Your task to perform on an android device: Open the calendar and show me this week's events? Image 0: 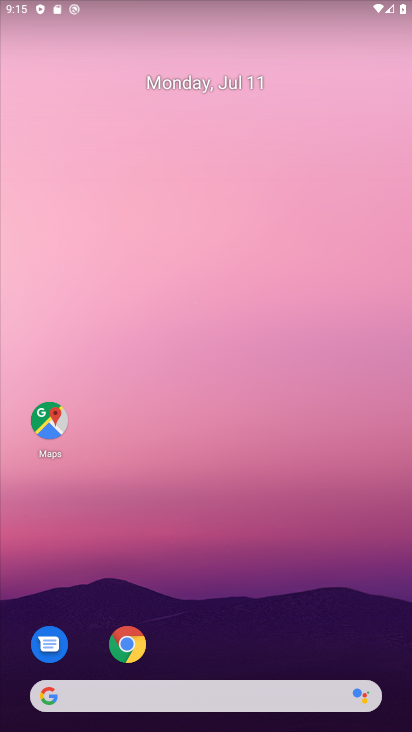
Step 0: drag from (208, 656) to (287, 73)
Your task to perform on an android device: Open the calendar and show me this week's events? Image 1: 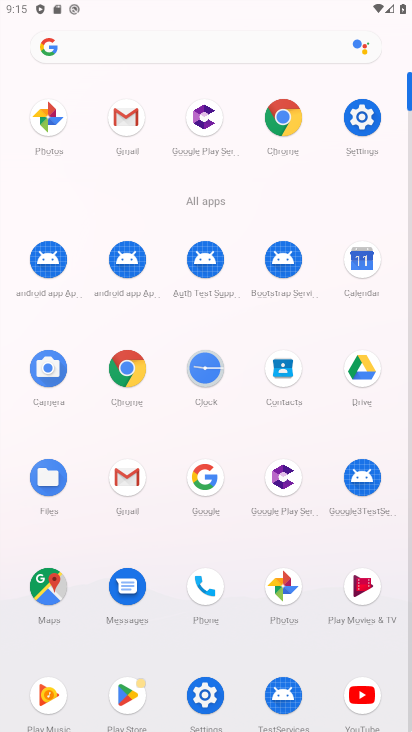
Step 1: click (362, 255)
Your task to perform on an android device: Open the calendar and show me this week's events? Image 2: 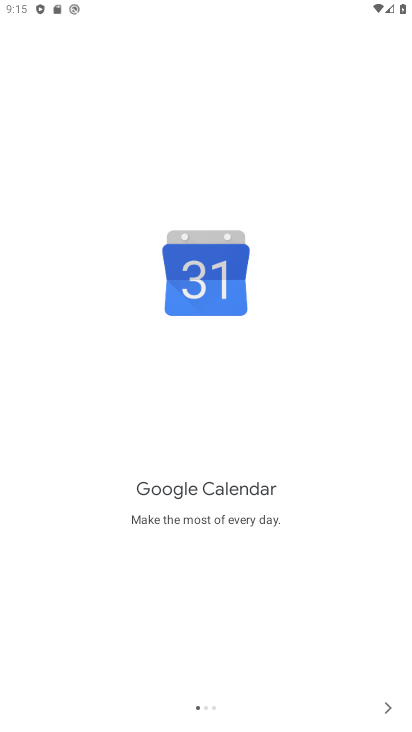
Step 2: click (388, 707)
Your task to perform on an android device: Open the calendar and show me this week's events? Image 3: 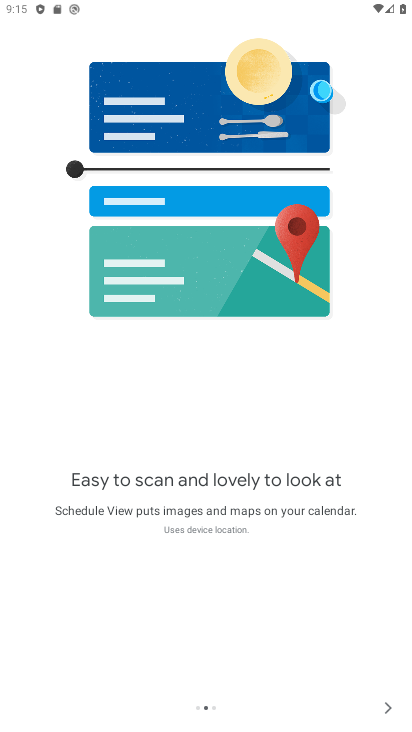
Step 3: click (388, 707)
Your task to perform on an android device: Open the calendar and show me this week's events? Image 4: 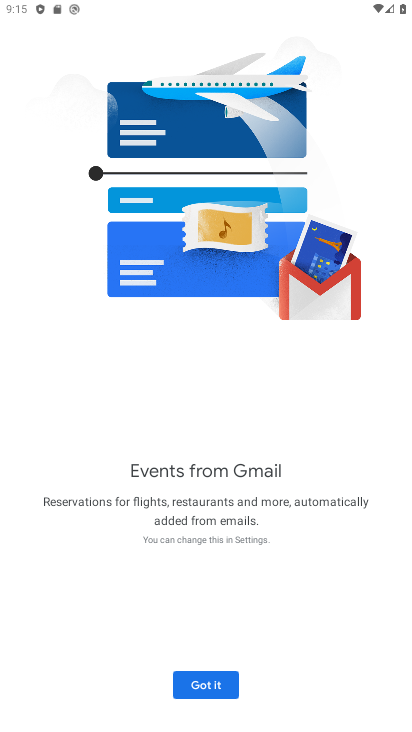
Step 4: click (210, 681)
Your task to perform on an android device: Open the calendar and show me this week's events? Image 5: 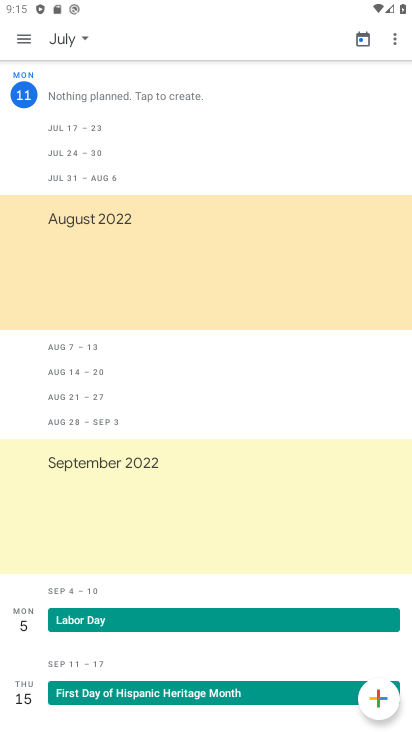
Step 5: click (31, 37)
Your task to perform on an android device: Open the calendar and show me this week's events? Image 6: 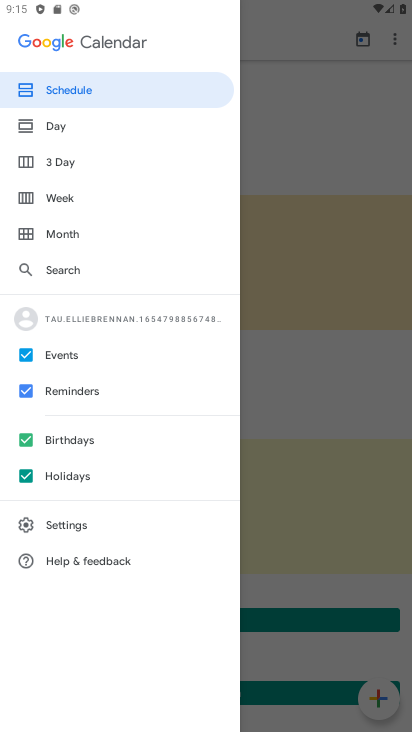
Step 6: click (29, 475)
Your task to perform on an android device: Open the calendar and show me this week's events? Image 7: 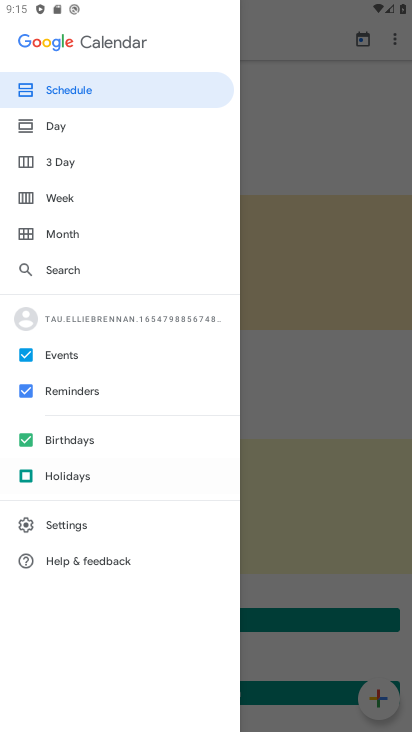
Step 7: click (22, 433)
Your task to perform on an android device: Open the calendar and show me this week's events? Image 8: 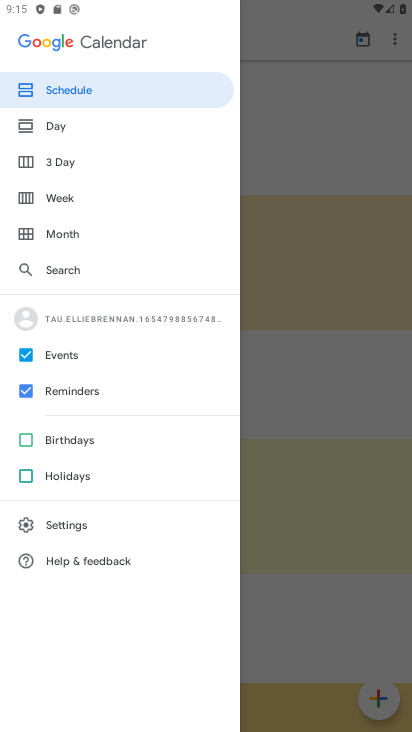
Step 8: click (29, 389)
Your task to perform on an android device: Open the calendar and show me this week's events? Image 9: 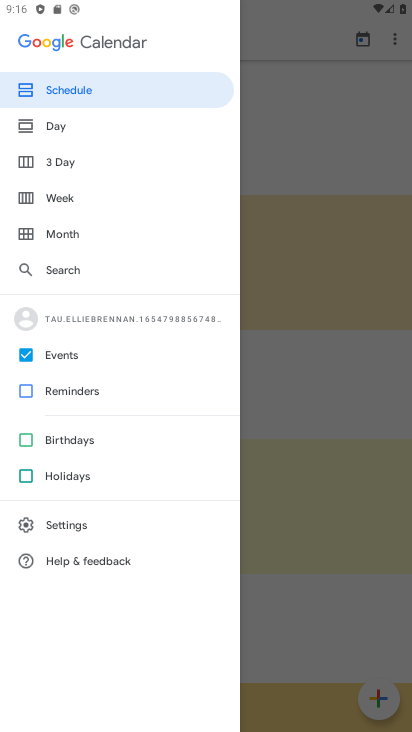
Step 9: click (41, 193)
Your task to perform on an android device: Open the calendar and show me this week's events? Image 10: 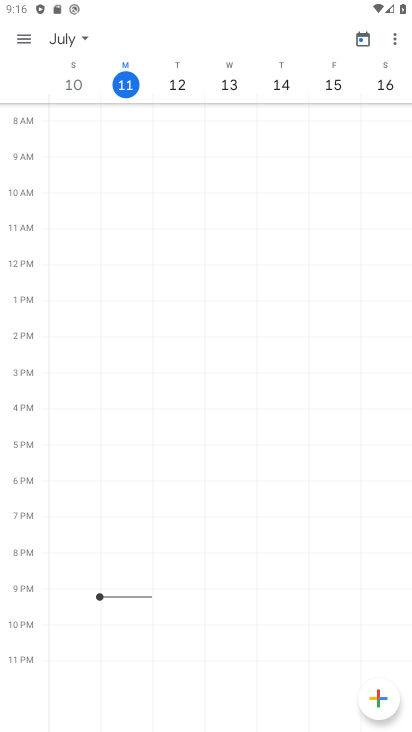
Step 10: task complete